Your task to perform on an android device: Open location settings Image 0: 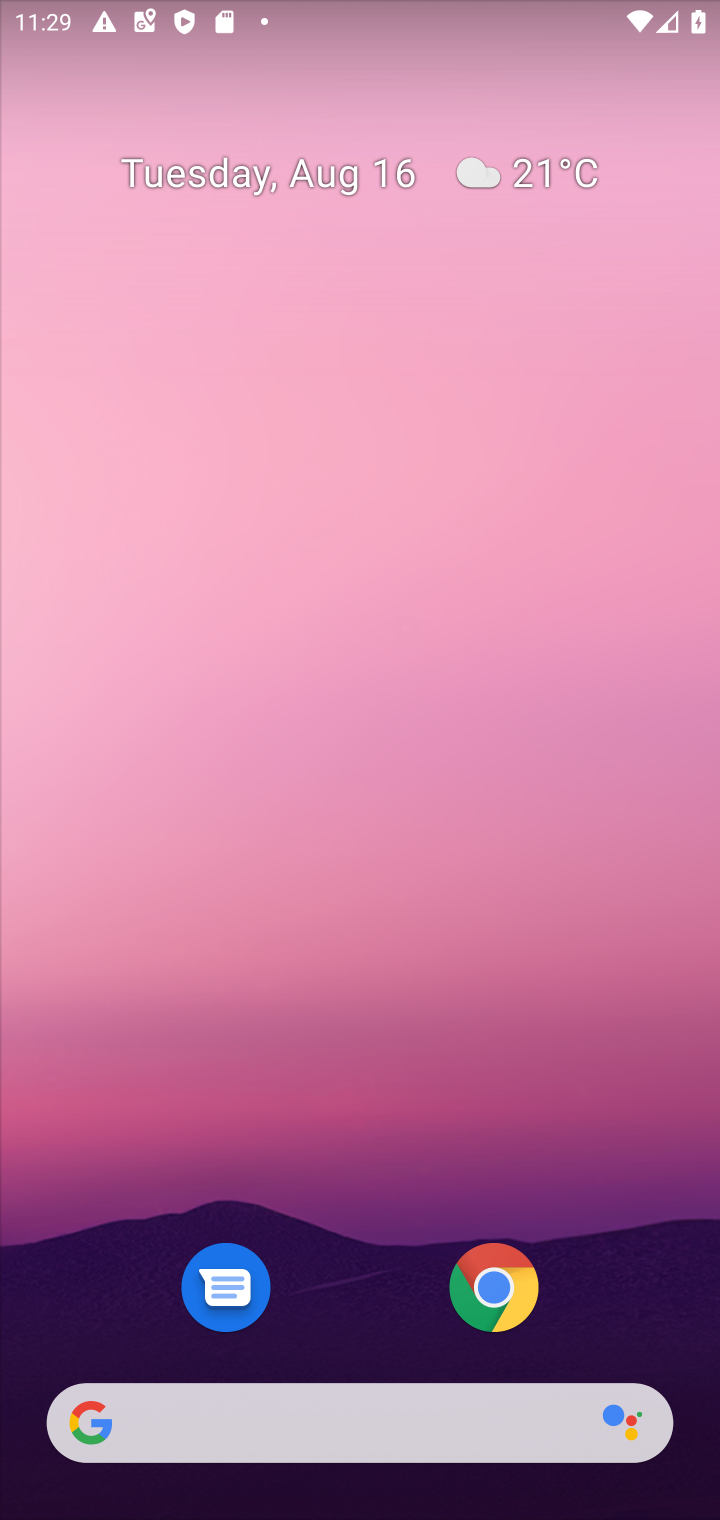
Step 0: drag from (642, 1325) to (534, 312)
Your task to perform on an android device: Open location settings Image 1: 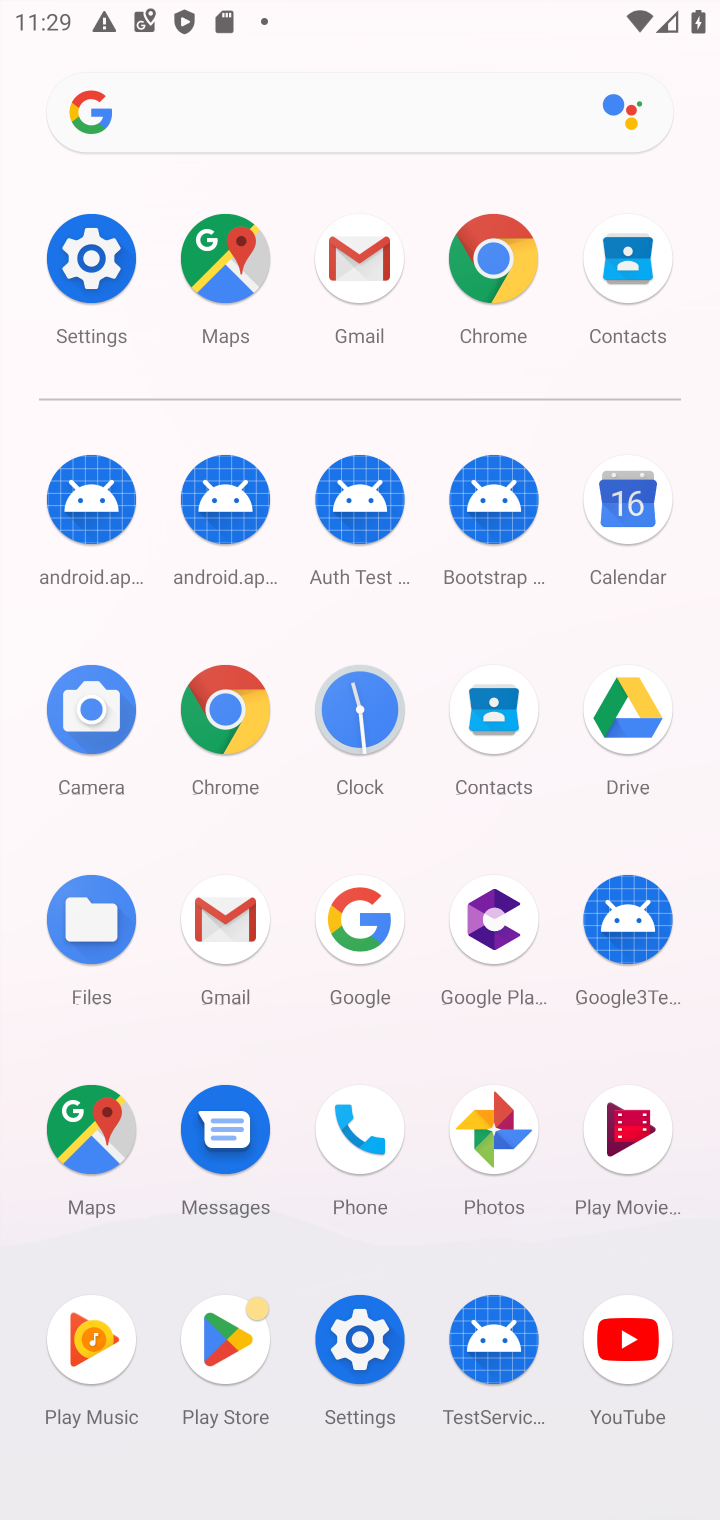
Step 1: click (357, 1339)
Your task to perform on an android device: Open location settings Image 2: 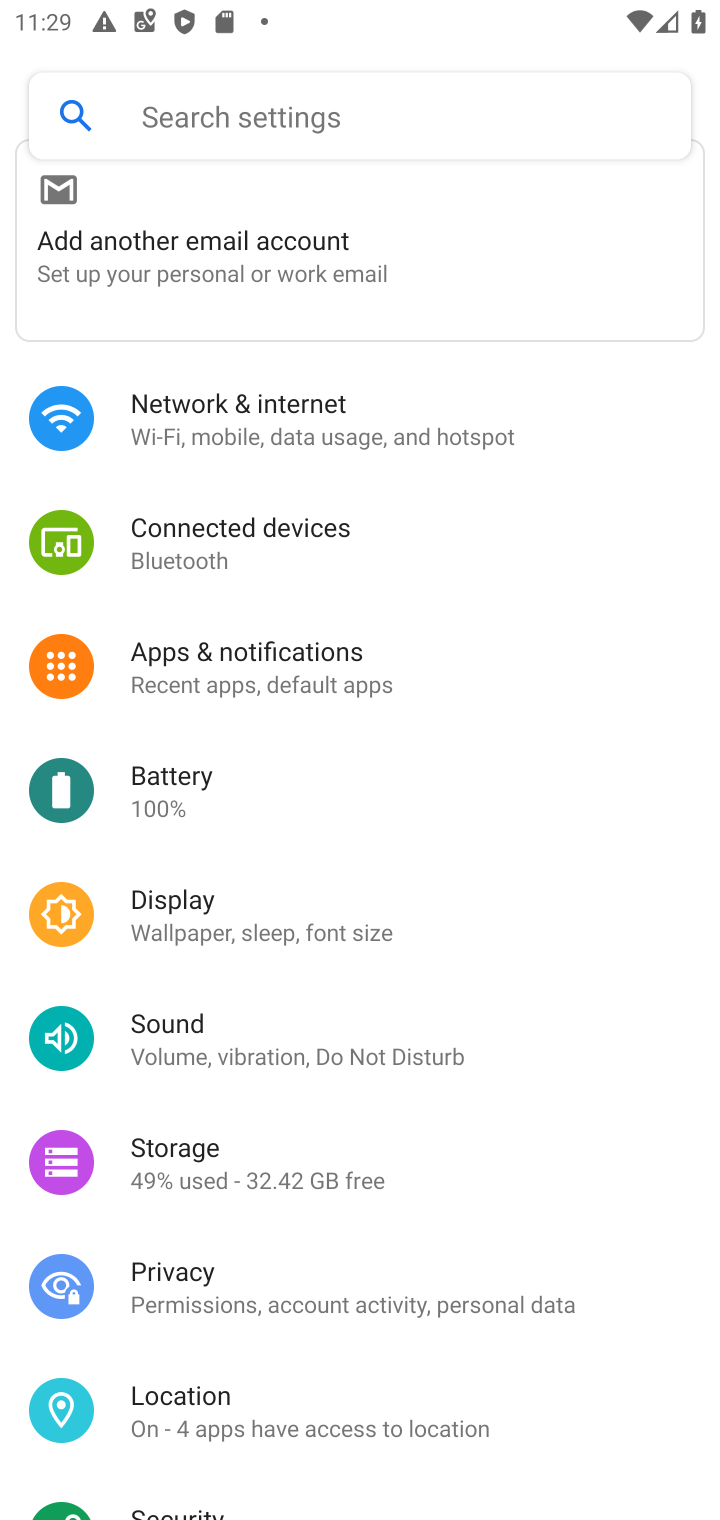
Step 2: drag from (357, 1339) to (385, 748)
Your task to perform on an android device: Open location settings Image 3: 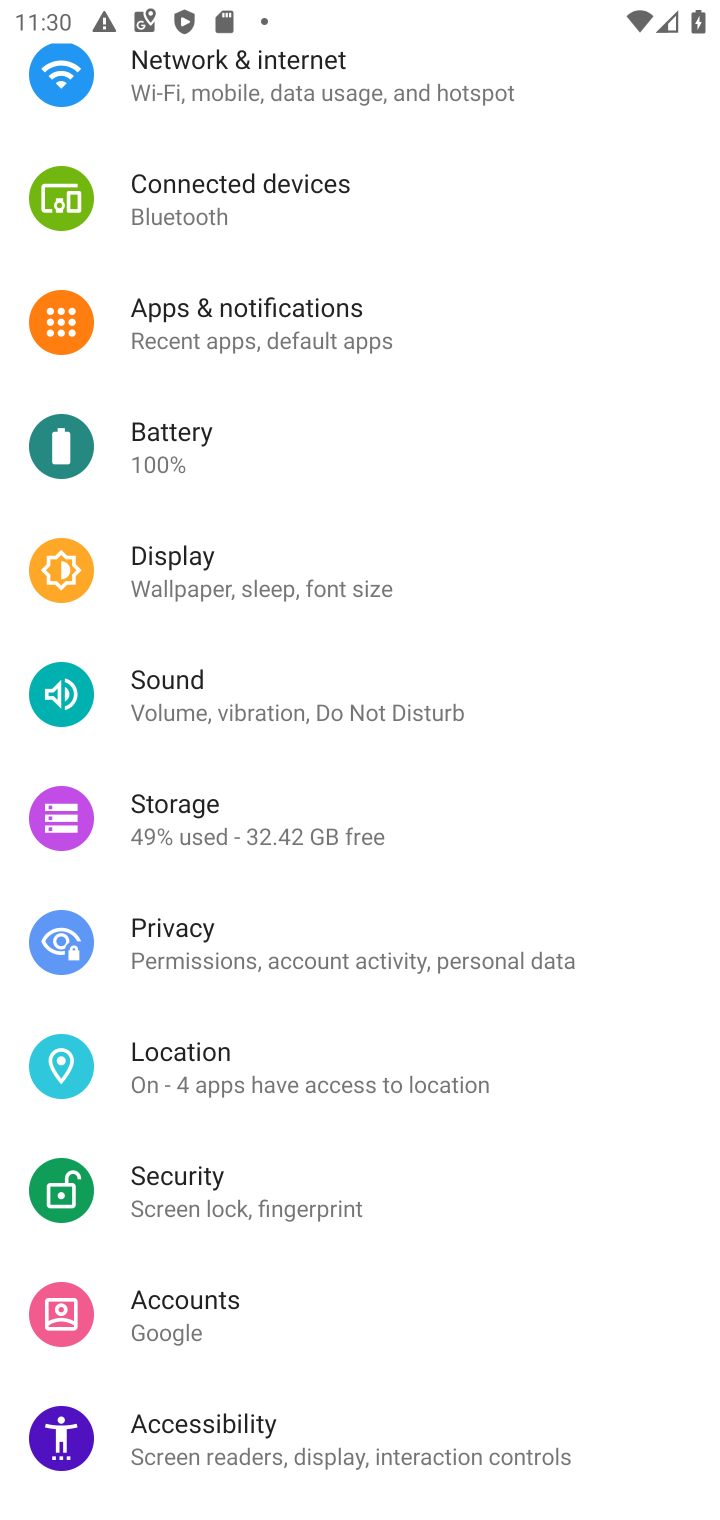
Step 3: click (202, 1068)
Your task to perform on an android device: Open location settings Image 4: 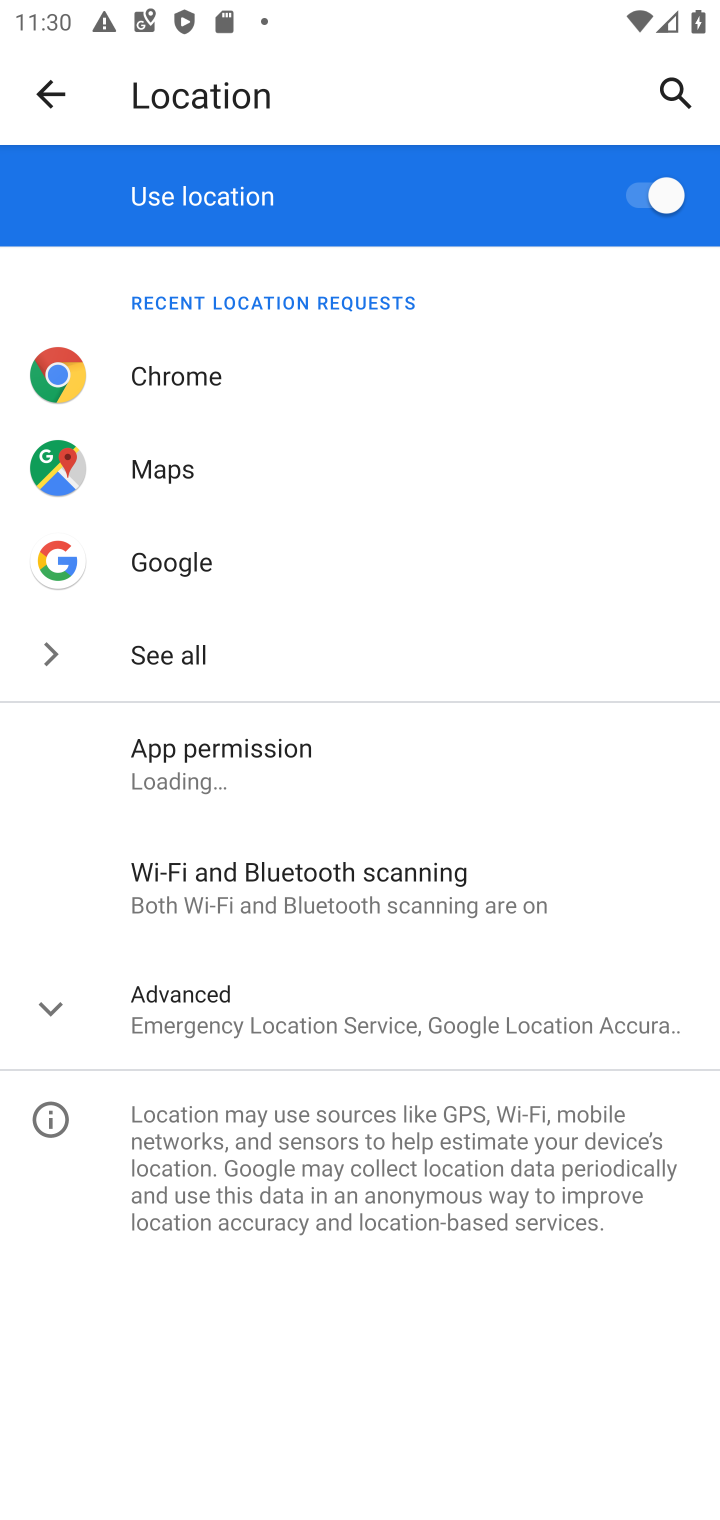
Step 4: click (46, 1016)
Your task to perform on an android device: Open location settings Image 5: 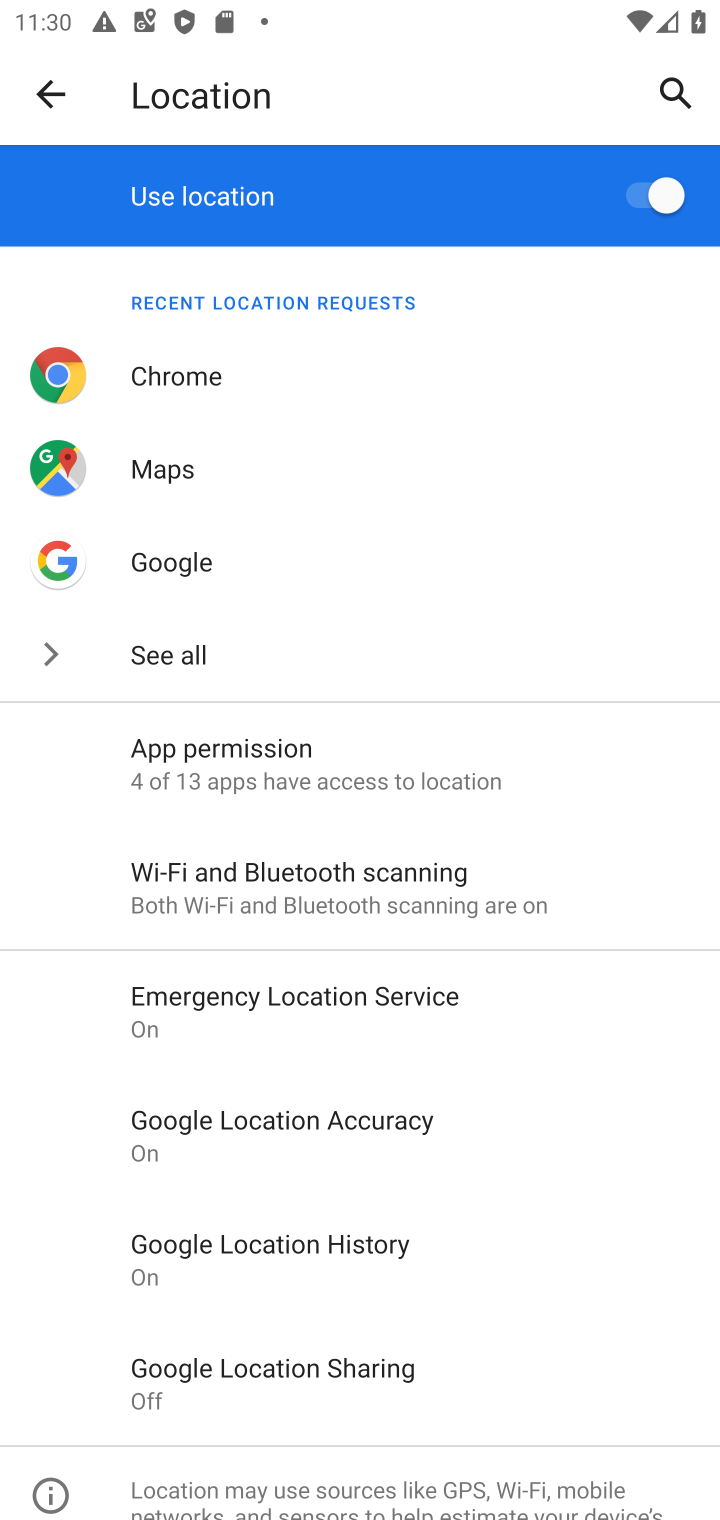
Step 5: task complete